Your task to perform on an android device: Open Yahoo.com Image 0: 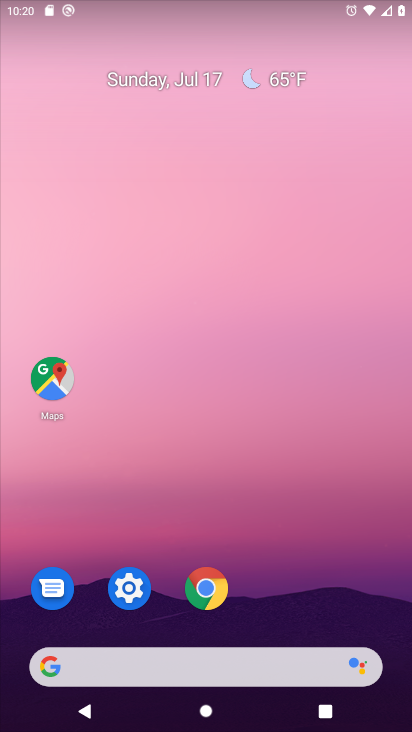
Step 0: drag from (123, 338) to (102, 90)
Your task to perform on an android device: Open Yahoo.com Image 1: 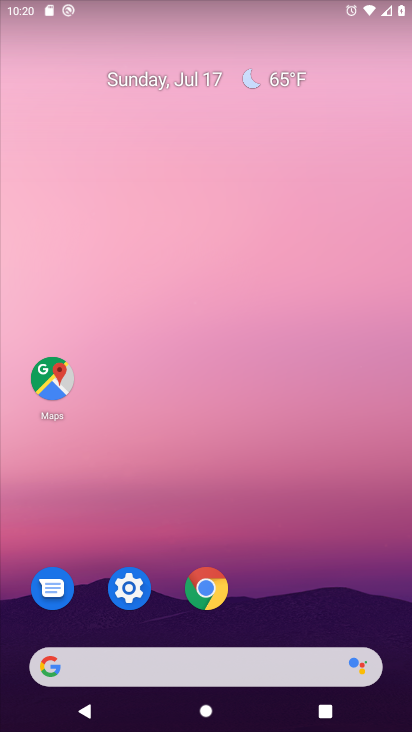
Step 1: drag from (202, 342) to (165, 75)
Your task to perform on an android device: Open Yahoo.com Image 2: 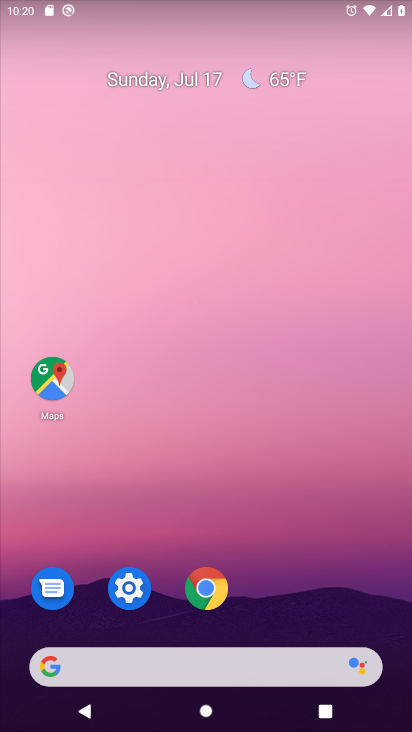
Step 2: drag from (242, 657) to (220, 118)
Your task to perform on an android device: Open Yahoo.com Image 3: 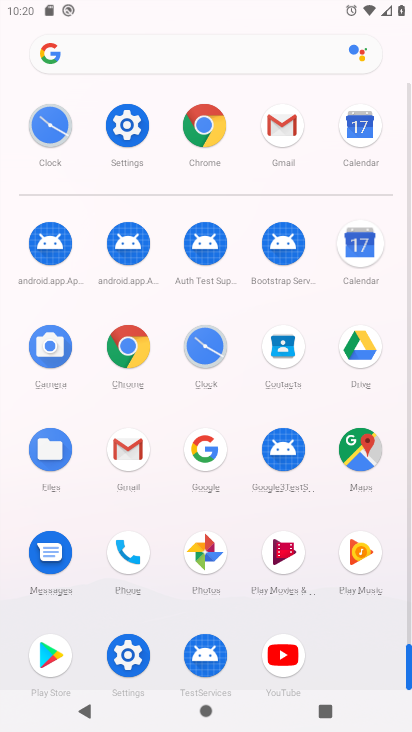
Step 3: drag from (313, 693) to (268, 88)
Your task to perform on an android device: Open Yahoo.com Image 4: 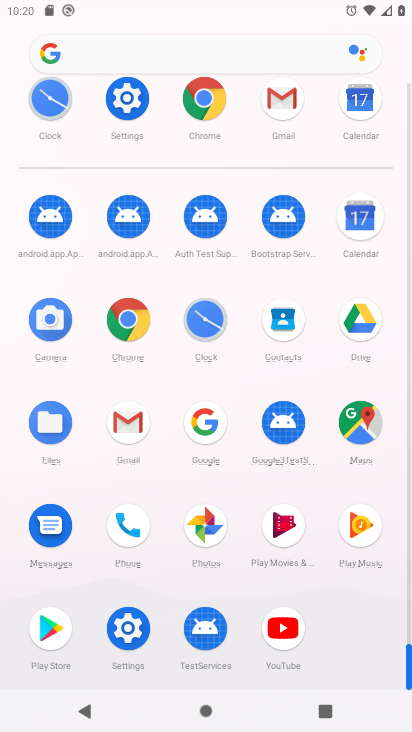
Step 4: click (228, 89)
Your task to perform on an android device: Open Yahoo.com Image 5: 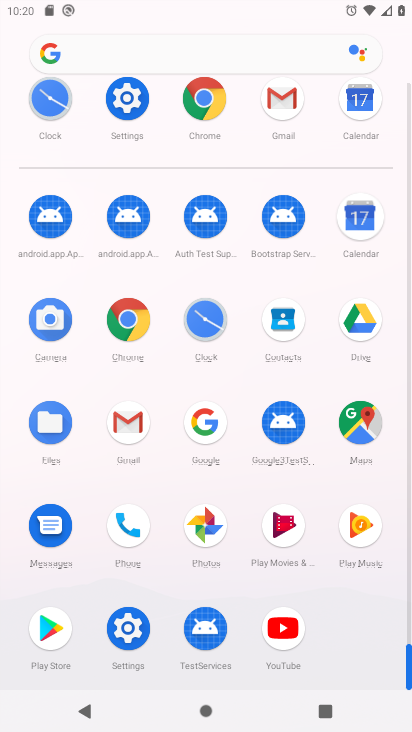
Step 5: click (198, 99)
Your task to perform on an android device: Open Yahoo.com Image 6: 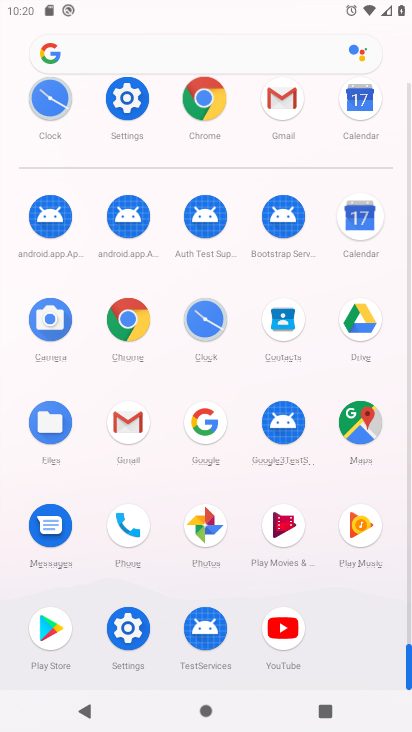
Step 6: click (198, 100)
Your task to perform on an android device: Open Yahoo.com Image 7: 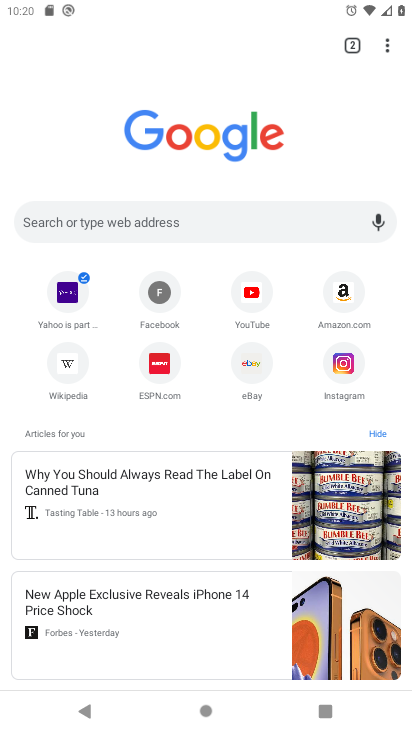
Step 7: click (72, 293)
Your task to perform on an android device: Open Yahoo.com Image 8: 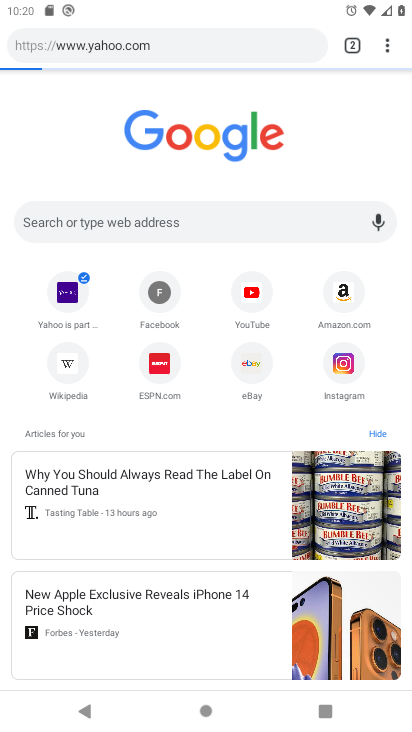
Step 8: click (72, 294)
Your task to perform on an android device: Open Yahoo.com Image 9: 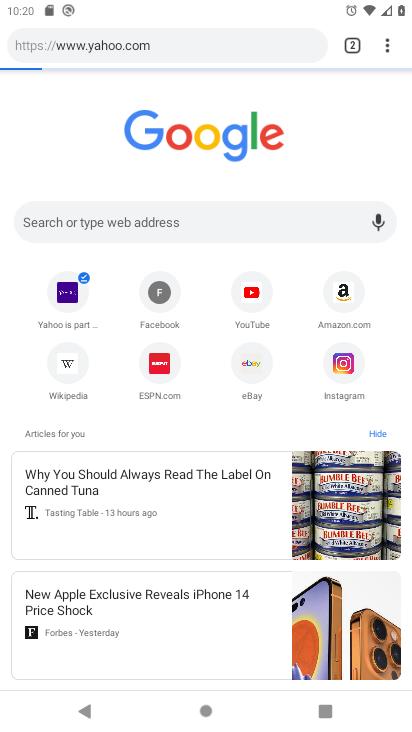
Step 9: click (72, 294)
Your task to perform on an android device: Open Yahoo.com Image 10: 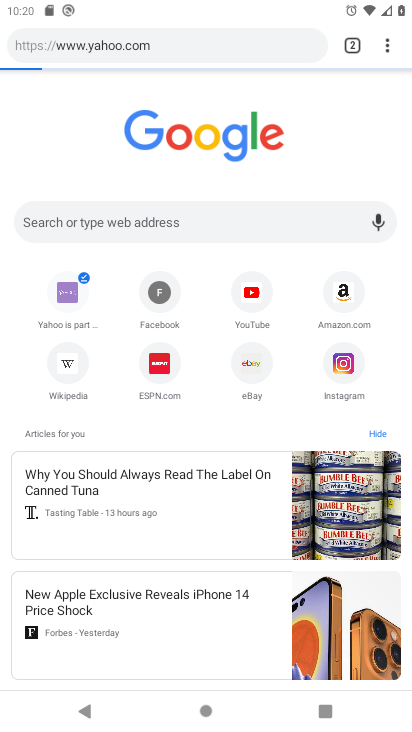
Step 10: click (72, 294)
Your task to perform on an android device: Open Yahoo.com Image 11: 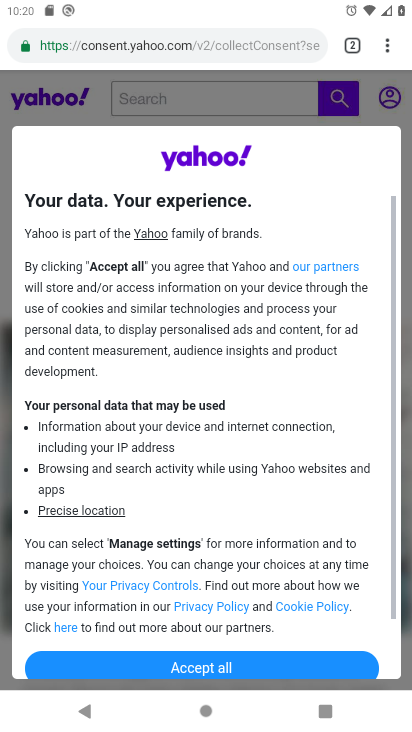
Step 11: task complete